Your task to perform on an android device: Do I have any events today? Image 0: 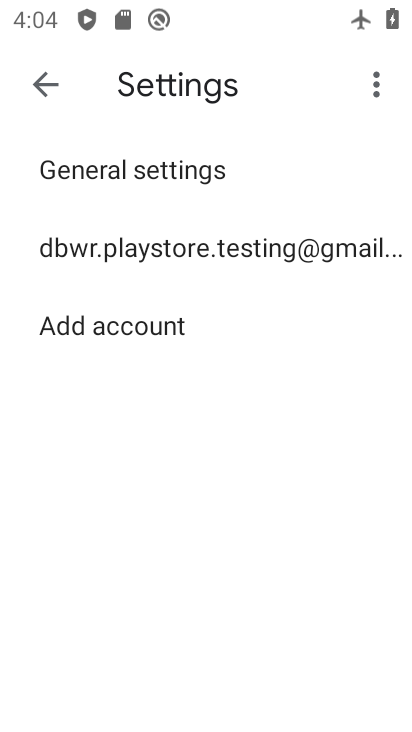
Step 0: press home button
Your task to perform on an android device: Do I have any events today? Image 1: 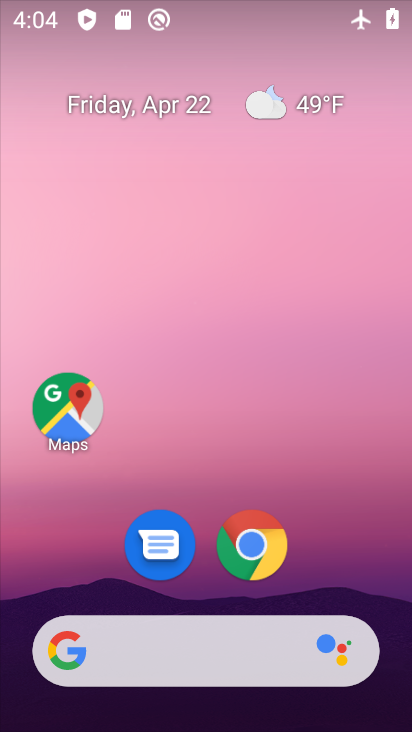
Step 1: drag from (322, 534) to (313, 71)
Your task to perform on an android device: Do I have any events today? Image 2: 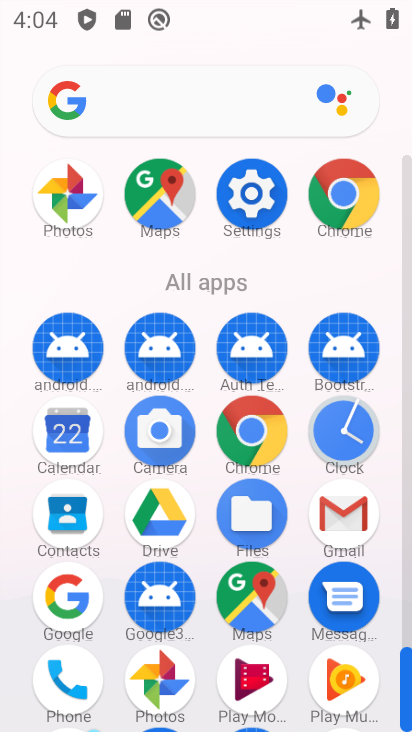
Step 2: click (61, 437)
Your task to perform on an android device: Do I have any events today? Image 3: 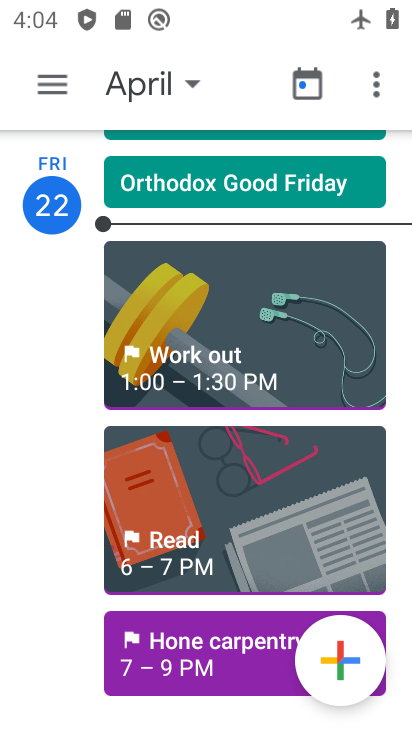
Step 3: click (168, 87)
Your task to perform on an android device: Do I have any events today? Image 4: 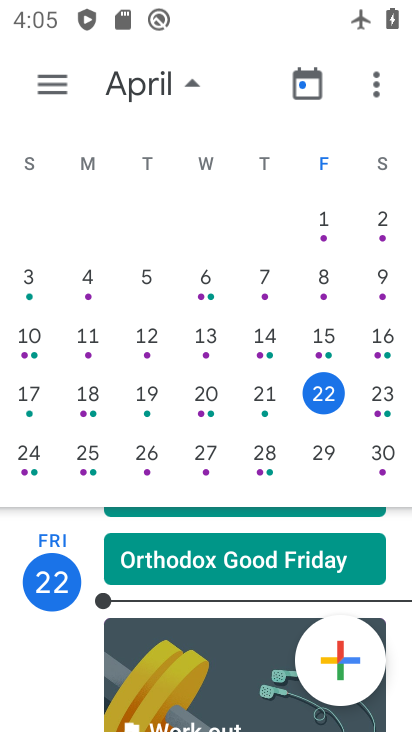
Step 4: task complete